Your task to perform on an android device: open wifi settings Image 0: 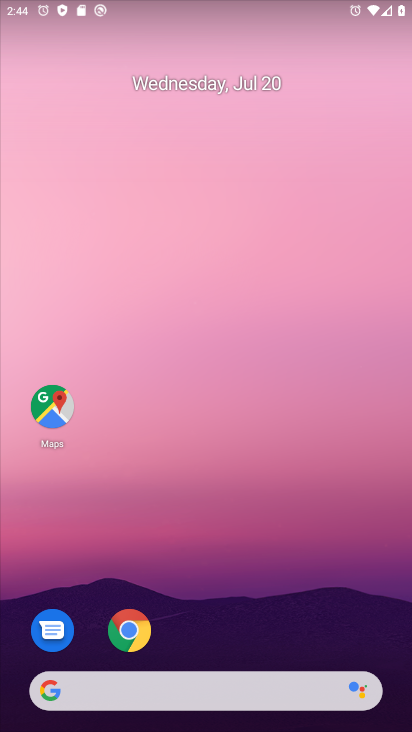
Step 0: click (290, 447)
Your task to perform on an android device: open wifi settings Image 1: 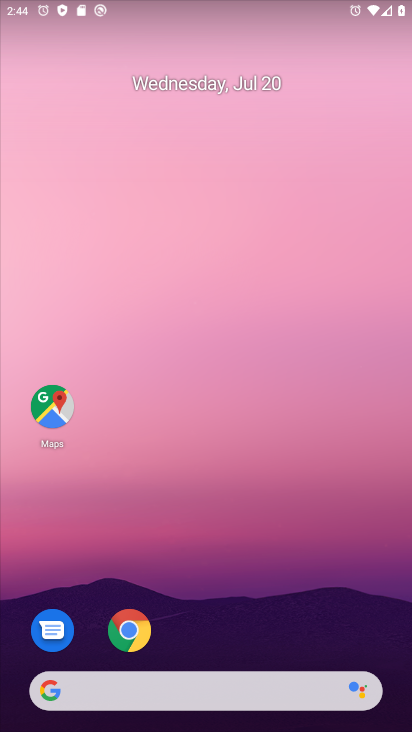
Step 1: press home button
Your task to perform on an android device: open wifi settings Image 2: 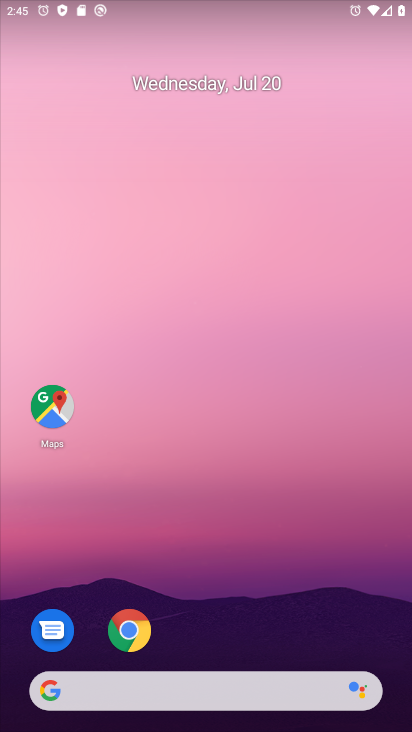
Step 2: drag from (0, 640) to (245, 87)
Your task to perform on an android device: open wifi settings Image 3: 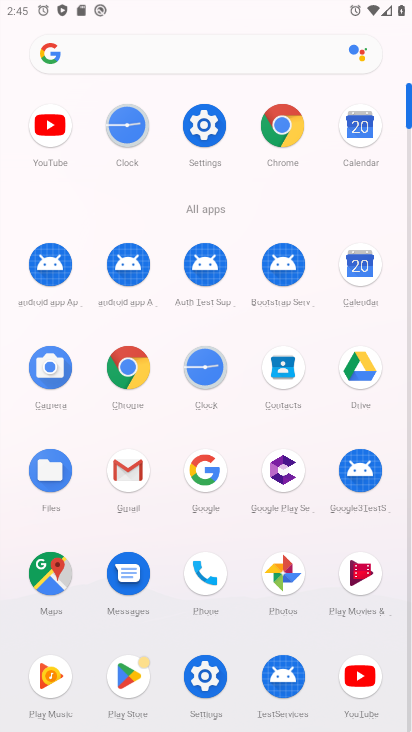
Step 3: click (202, 134)
Your task to perform on an android device: open wifi settings Image 4: 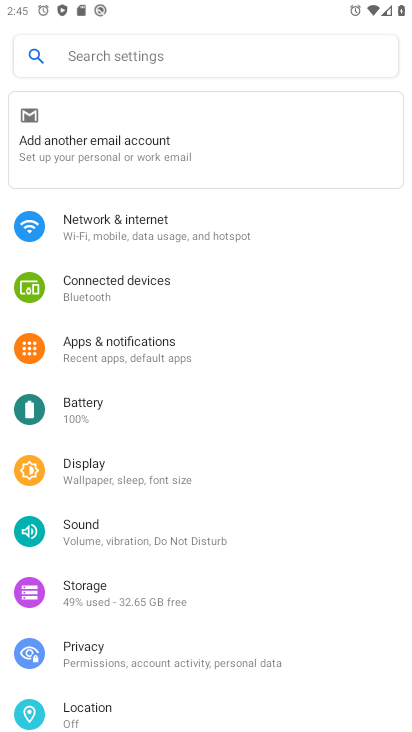
Step 4: click (132, 229)
Your task to perform on an android device: open wifi settings Image 5: 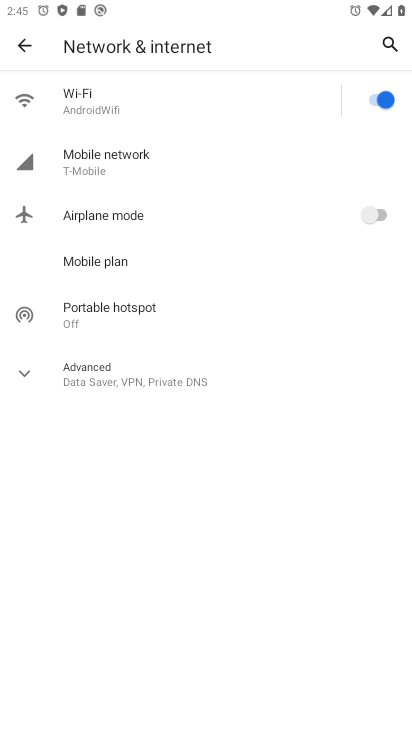
Step 5: click (106, 105)
Your task to perform on an android device: open wifi settings Image 6: 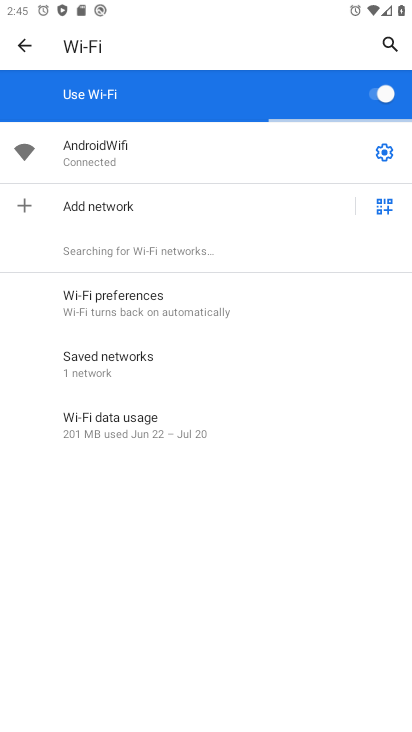
Step 6: click (383, 149)
Your task to perform on an android device: open wifi settings Image 7: 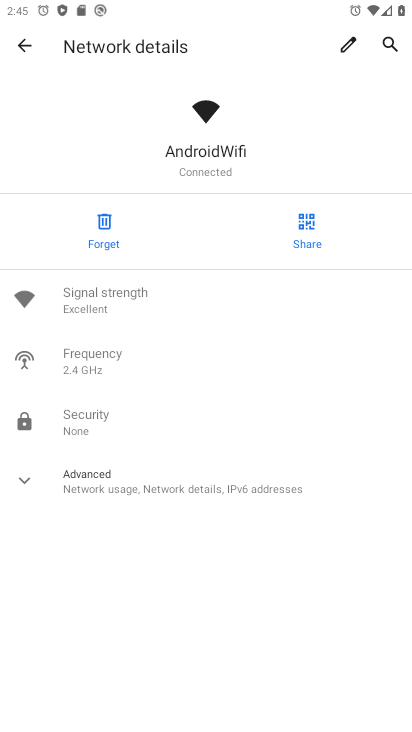
Step 7: task complete